Your task to perform on an android device: Is it going to rain today? Image 0: 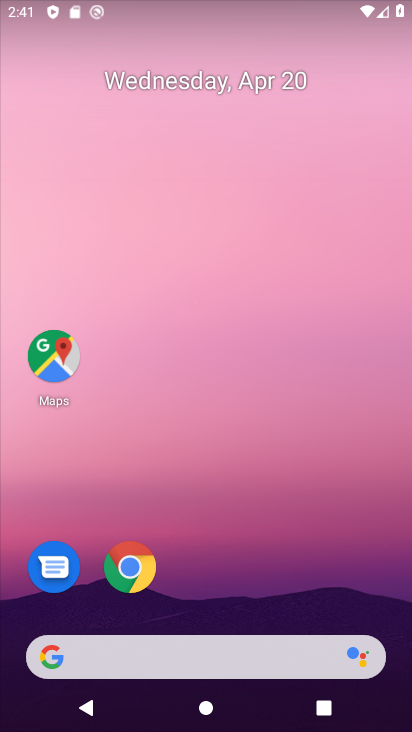
Step 0: click (131, 577)
Your task to perform on an android device: Is it going to rain today? Image 1: 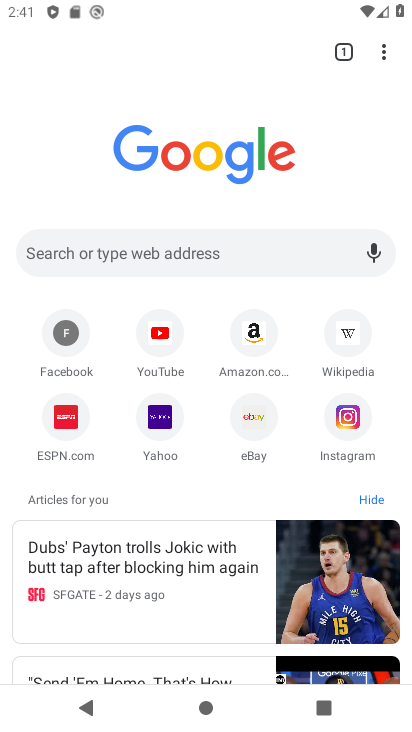
Step 1: click (274, 253)
Your task to perform on an android device: Is it going to rain today? Image 2: 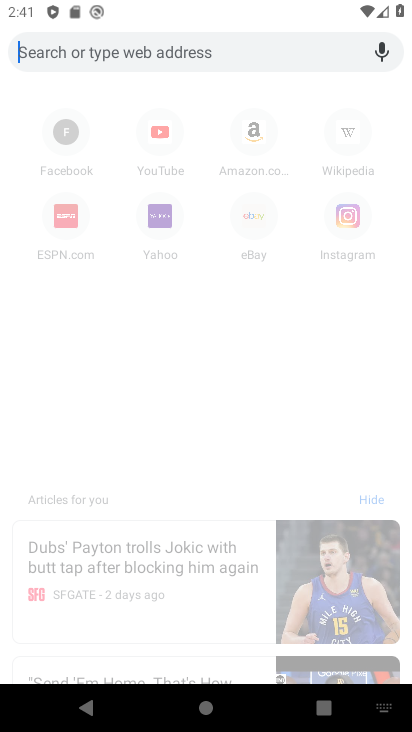
Step 2: type "Is it going to rain today?"
Your task to perform on an android device: Is it going to rain today? Image 3: 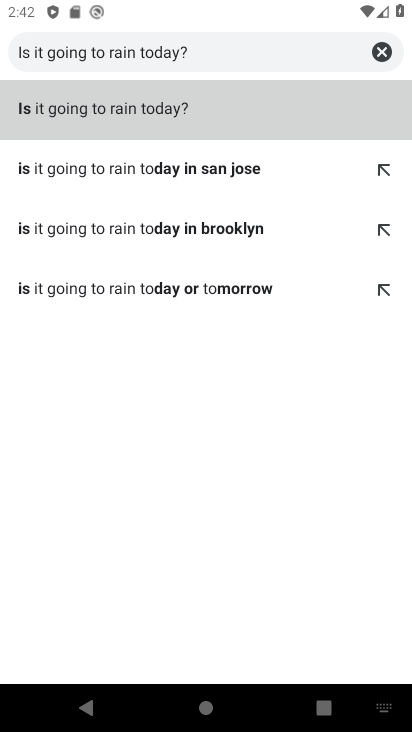
Step 3: click (180, 109)
Your task to perform on an android device: Is it going to rain today? Image 4: 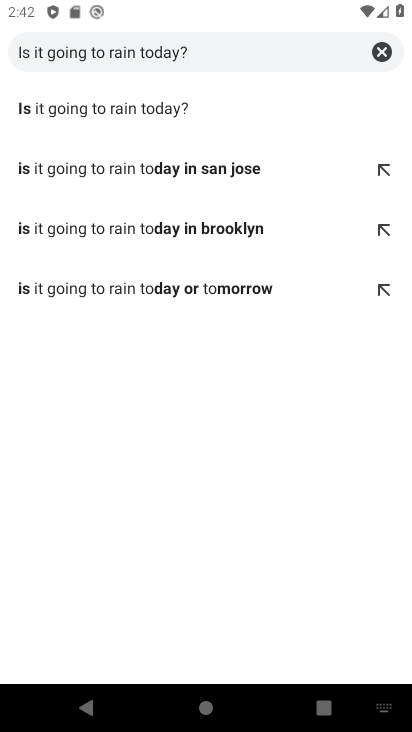
Step 4: click (180, 109)
Your task to perform on an android device: Is it going to rain today? Image 5: 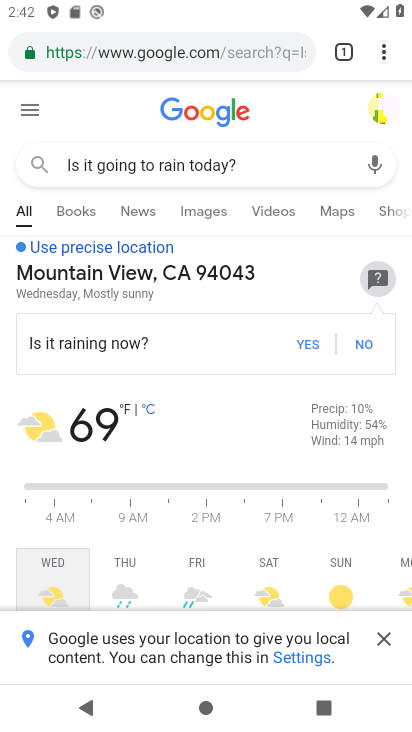
Step 5: task complete